Your task to perform on an android device: Turn off the flashlight Image 0: 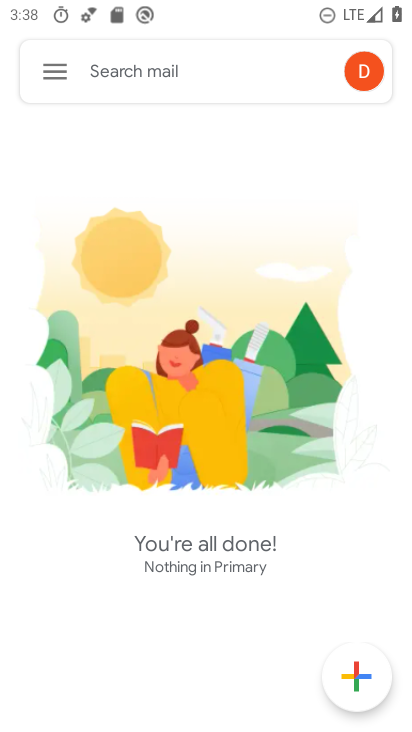
Step 0: press home button
Your task to perform on an android device: Turn off the flashlight Image 1: 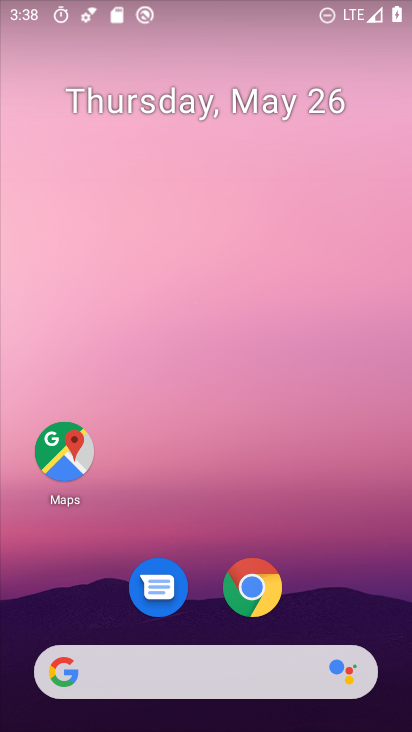
Step 1: drag from (264, 437) to (314, 76)
Your task to perform on an android device: Turn off the flashlight Image 2: 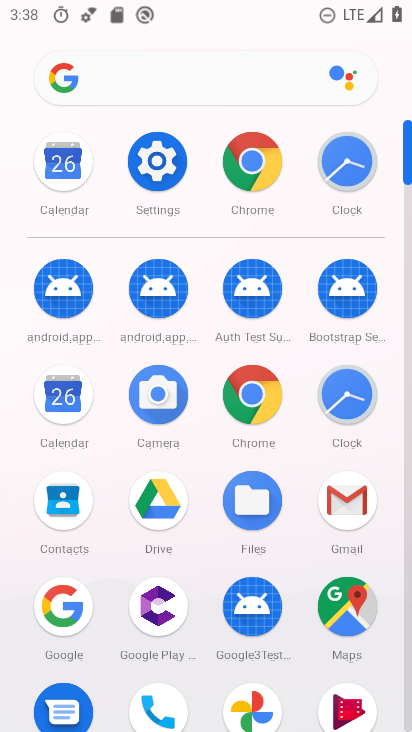
Step 2: click (155, 160)
Your task to perform on an android device: Turn off the flashlight Image 3: 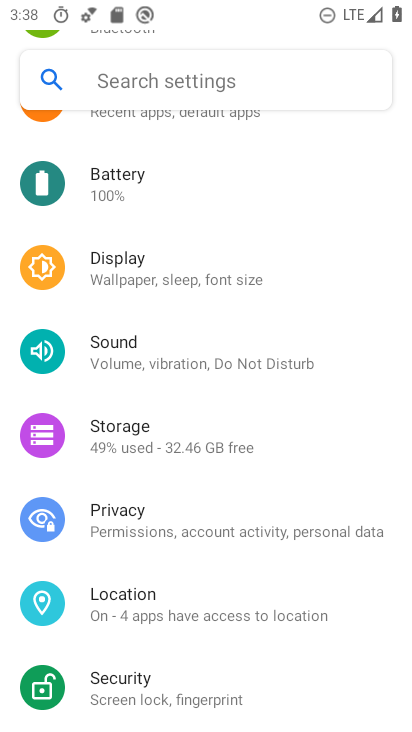
Step 3: click (105, 279)
Your task to perform on an android device: Turn off the flashlight Image 4: 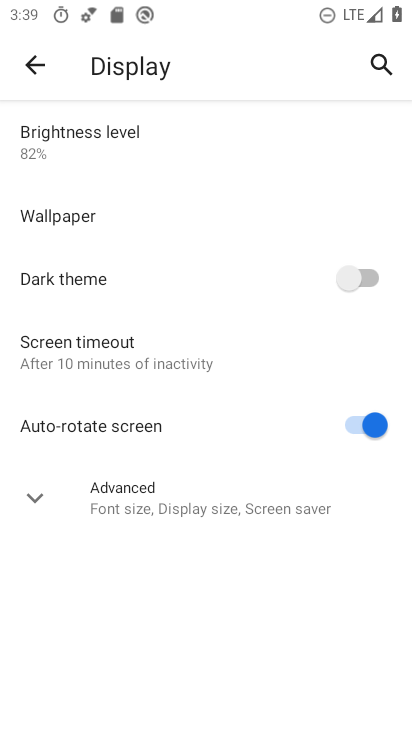
Step 4: task complete